Your task to perform on an android device: Open the camera Image 0: 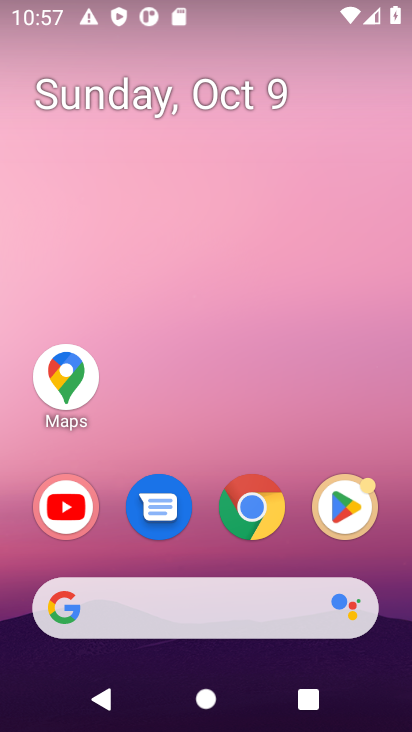
Step 0: drag from (364, 108) to (364, 35)
Your task to perform on an android device: Open the camera Image 1: 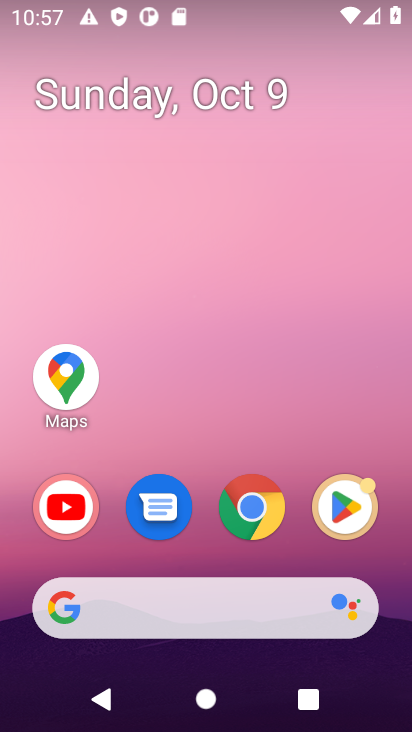
Step 1: task complete